Your task to perform on an android device: Go to Amazon Image 0: 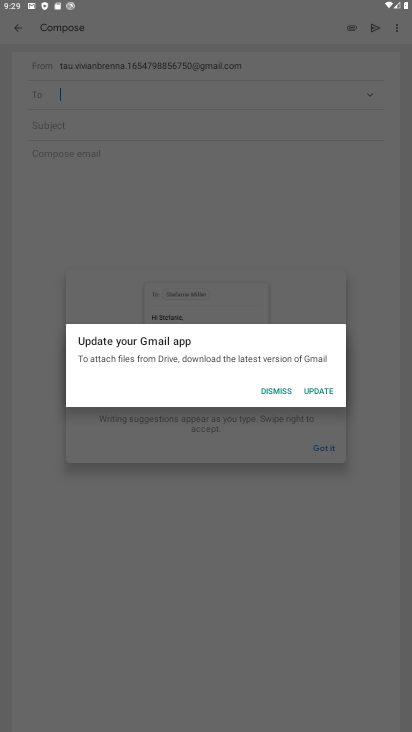
Step 0: press home button
Your task to perform on an android device: Go to Amazon Image 1: 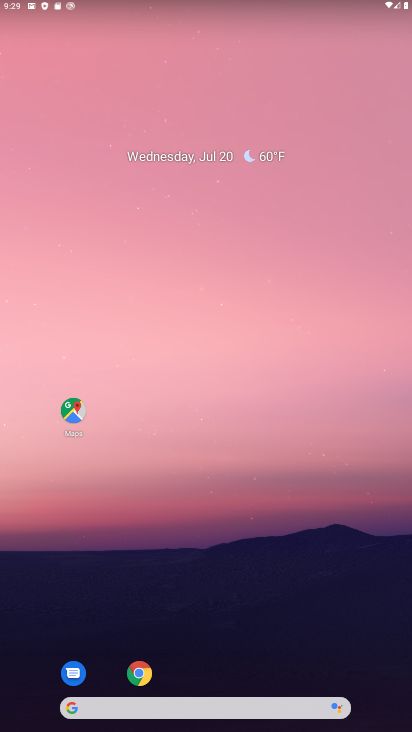
Step 1: click (145, 673)
Your task to perform on an android device: Go to Amazon Image 2: 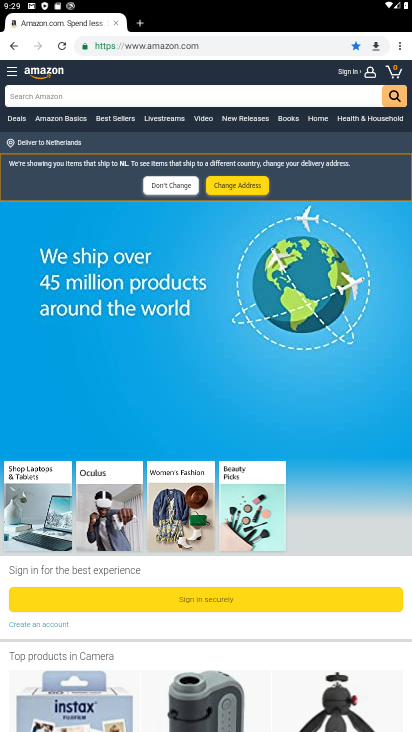
Step 2: task complete